Your task to perform on an android device: show emergency info Image 0: 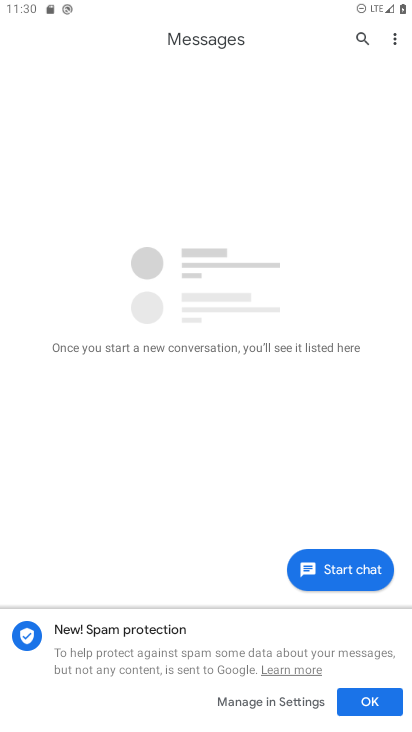
Step 0: press home button
Your task to perform on an android device: show emergency info Image 1: 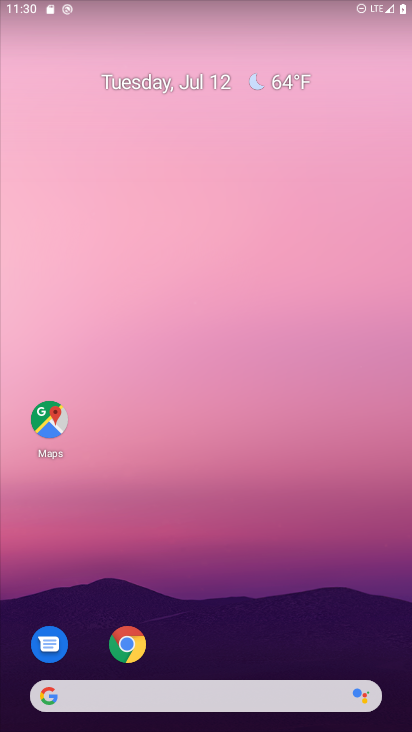
Step 1: drag from (257, 646) to (252, 120)
Your task to perform on an android device: show emergency info Image 2: 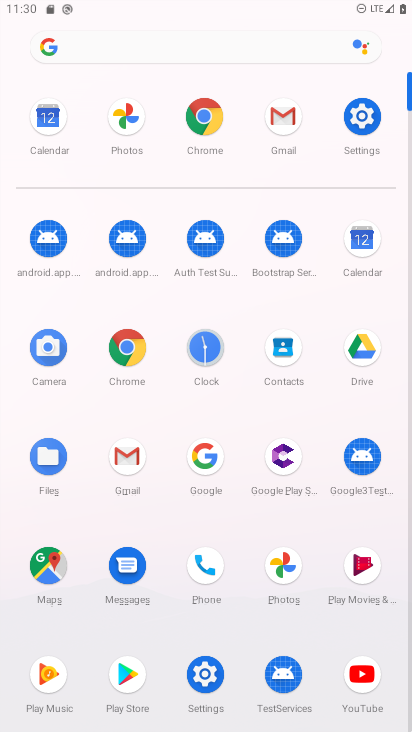
Step 2: click (347, 128)
Your task to perform on an android device: show emergency info Image 3: 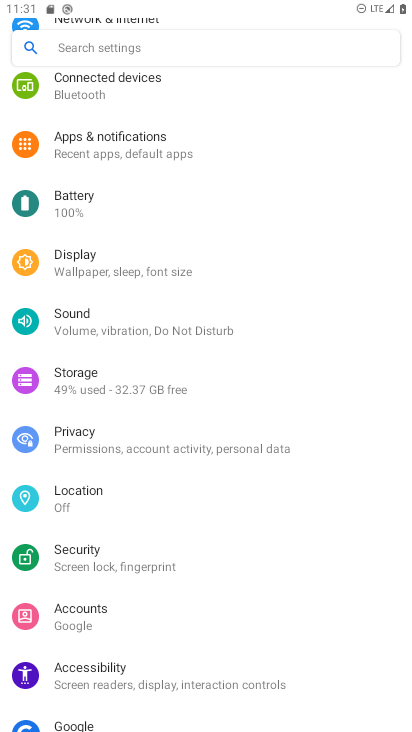
Step 3: drag from (160, 614) to (202, 287)
Your task to perform on an android device: show emergency info Image 4: 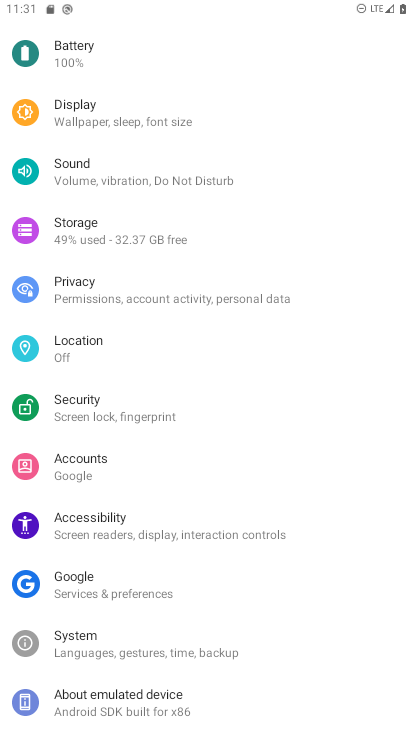
Step 4: click (108, 715)
Your task to perform on an android device: show emergency info Image 5: 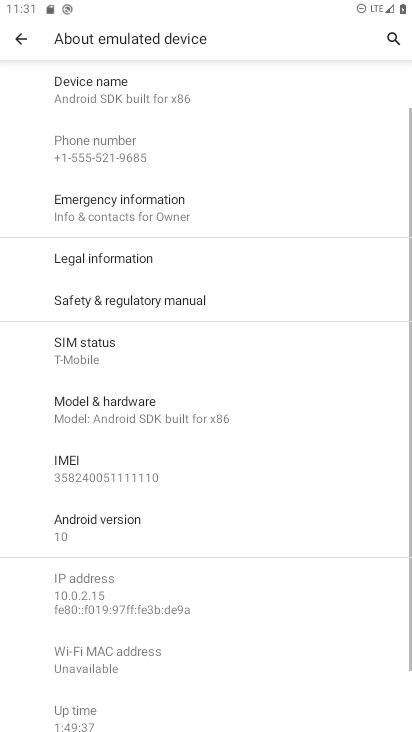
Step 5: click (169, 221)
Your task to perform on an android device: show emergency info Image 6: 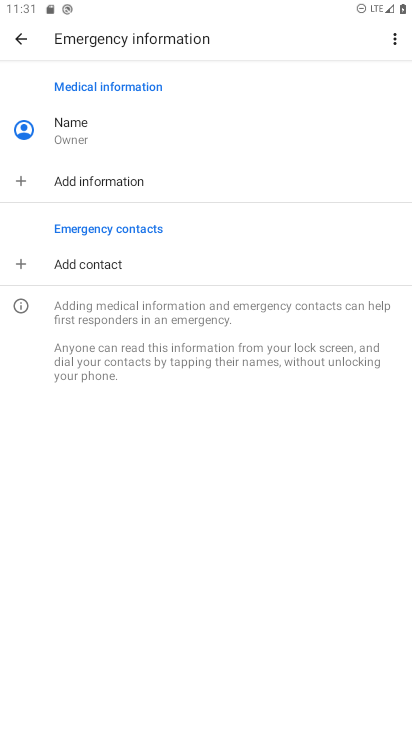
Step 6: task complete